Your task to perform on an android device: Go to Yahoo.com Image 0: 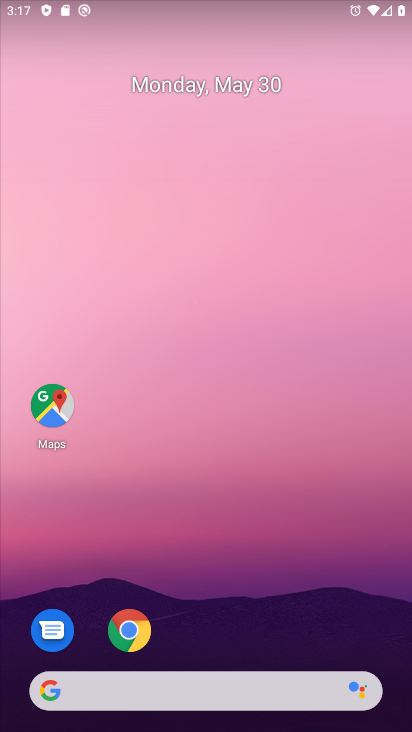
Step 0: drag from (332, 616) to (273, 168)
Your task to perform on an android device: Go to Yahoo.com Image 1: 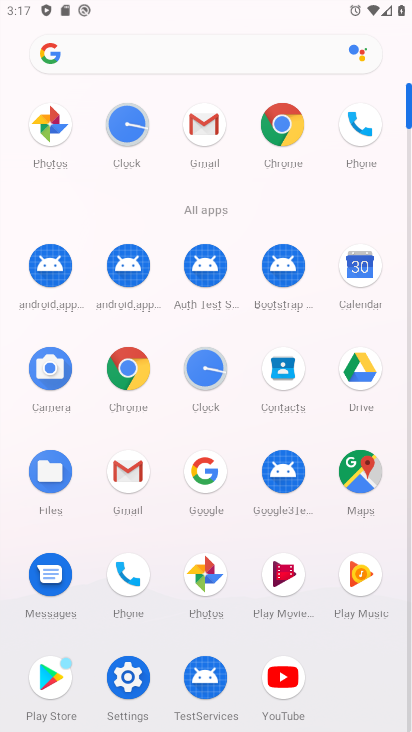
Step 1: click (296, 152)
Your task to perform on an android device: Go to Yahoo.com Image 2: 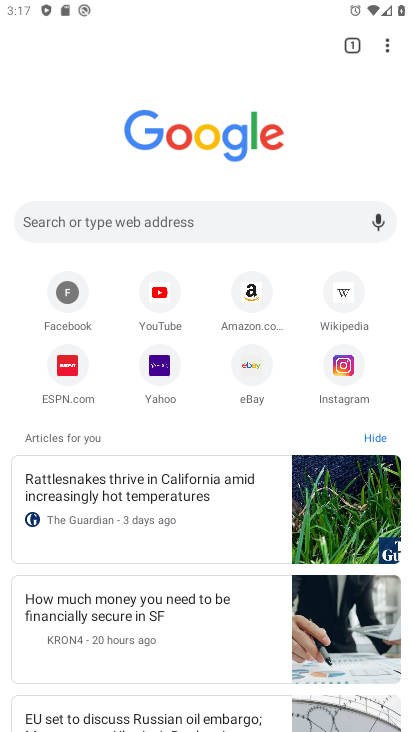
Step 2: click (160, 389)
Your task to perform on an android device: Go to Yahoo.com Image 3: 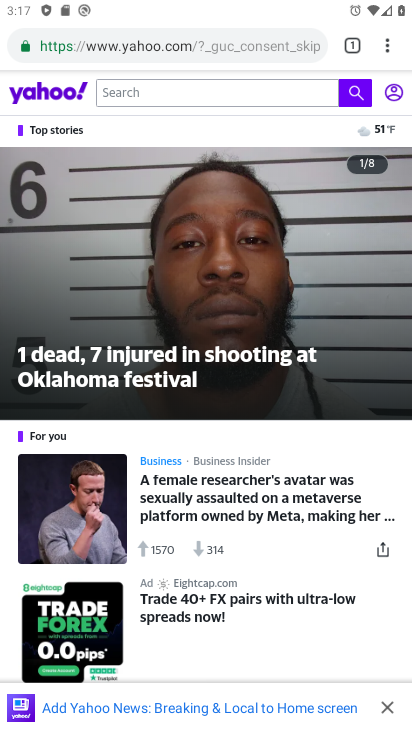
Step 3: task complete